Your task to perform on an android device: Open accessibility settings Image 0: 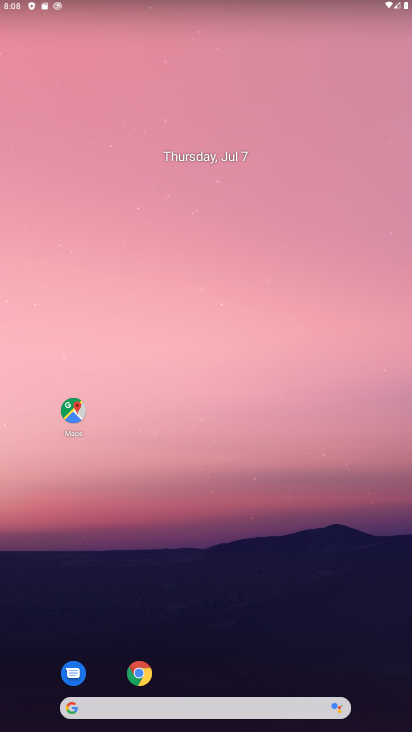
Step 0: drag from (267, 690) to (391, 536)
Your task to perform on an android device: Open accessibility settings Image 1: 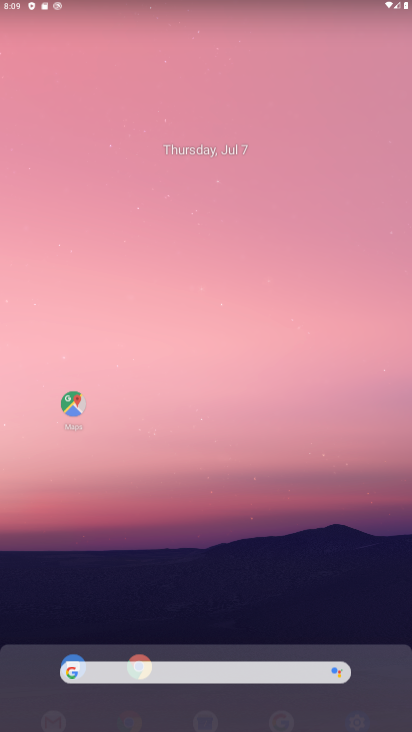
Step 1: click (194, 506)
Your task to perform on an android device: Open accessibility settings Image 2: 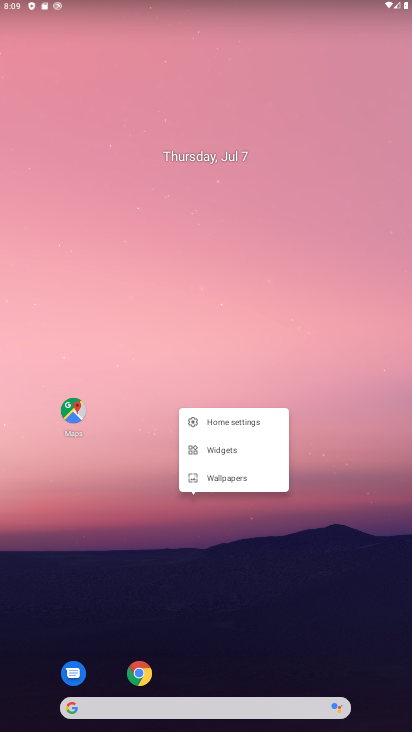
Step 2: click (232, 669)
Your task to perform on an android device: Open accessibility settings Image 3: 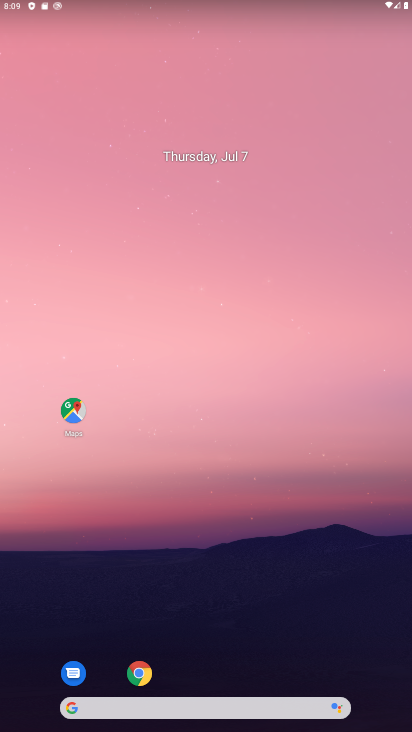
Step 3: drag from (230, 668) to (308, 24)
Your task to perform on an android device: Open accessibility settings Image 4: 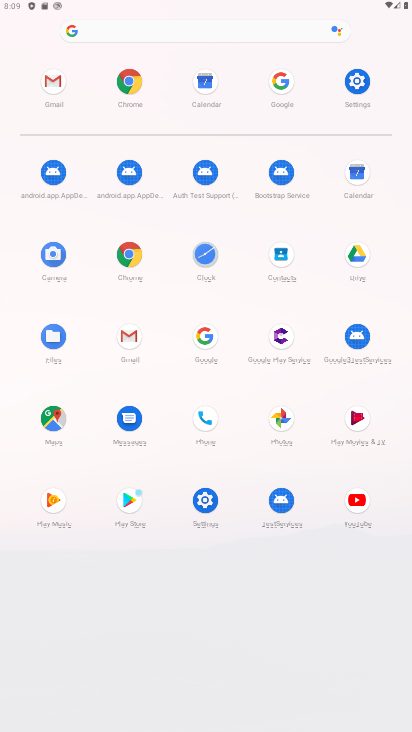
Step 4: click (204, 528)
Your task to perform on an android device: Open accessibility settings Image 5: 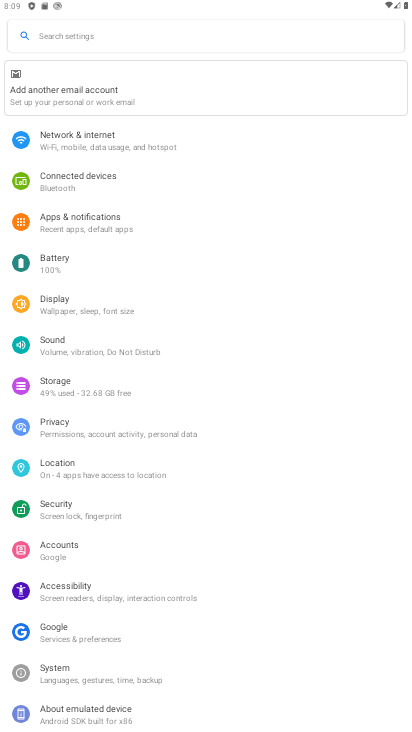
Step 5: drag from (158, 549) to (122, 443)
Your task to perform on an android device: Open accessibility settings Image 6: 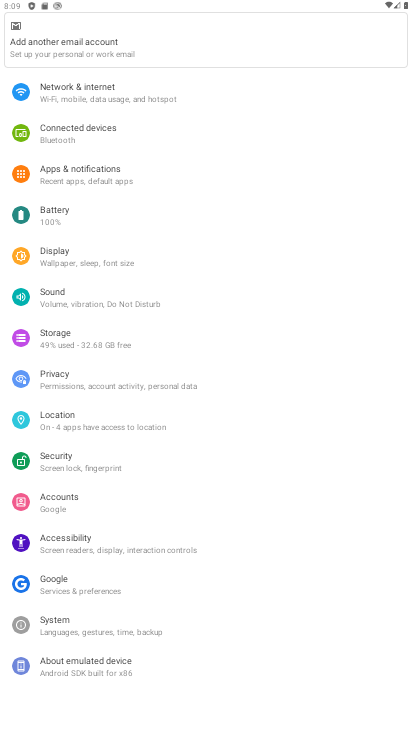
Step 6: click (98, 546)
Your task to perform on an android device: Open accessibility settings Image 7: 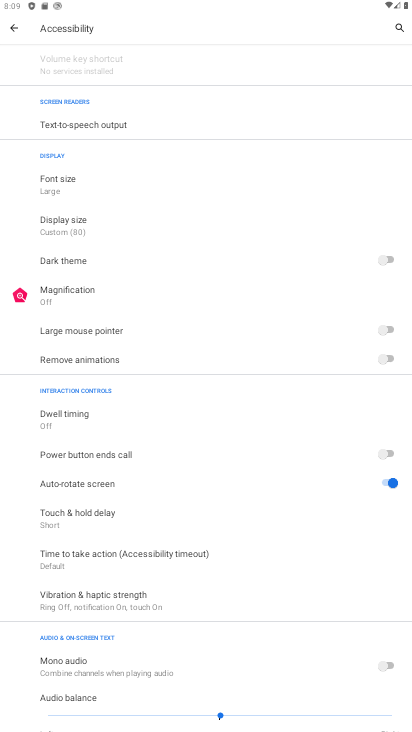
Step 7: task complete